Your task to perform on an android device: empty trash in google photos Image 0: 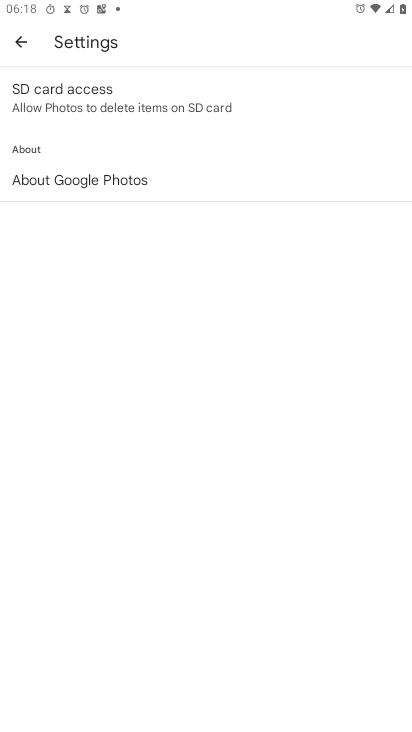
Step 0: press home button
Your task to perform on an android device: empty trash in google photos Image 1: 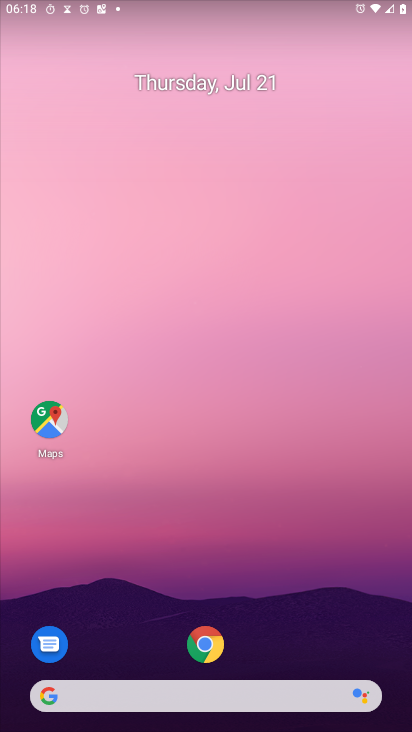
Step 1: drag from (321, 599) to (307, 47)
Your task to perform on an android device: empty trash in google photos Image 2: 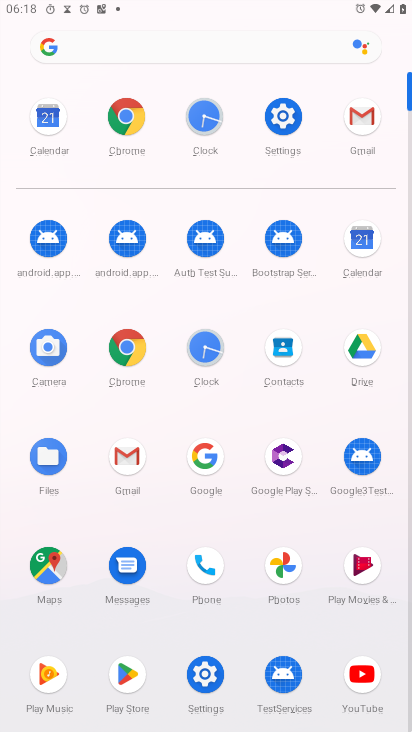
Step 2: click (283, 556)
Your task to perform on an android device: empty trash in google photos Image 3: 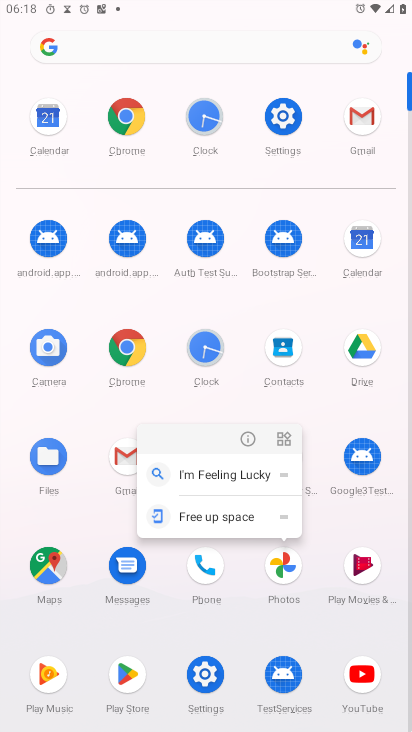
Step 3: click (283, 560)
Your task to perform on an android device: empty trash in google photos Image 4: 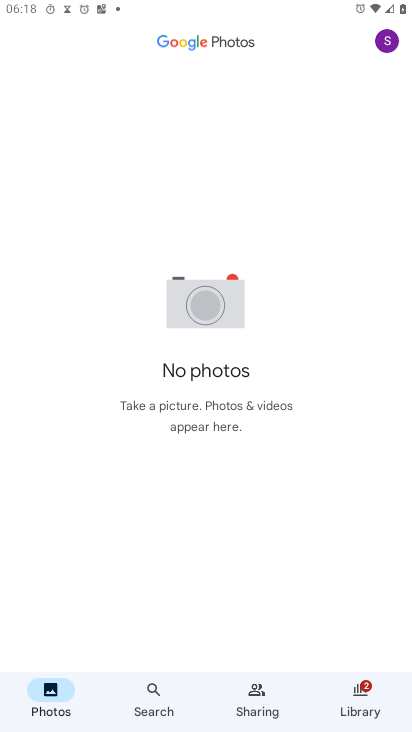
Step 4: click (362, 688)
Your task to perform on an android device: empty trash in google photos Image 5: 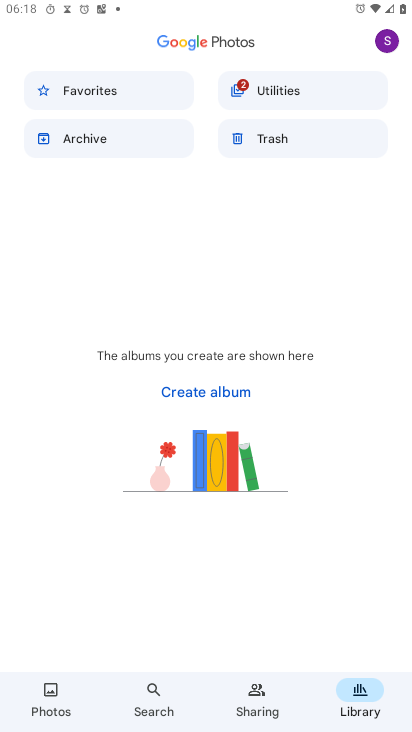
Step 5: click (259, 140)
Your task to perform on an android device: empty trash in google photos Image 6: 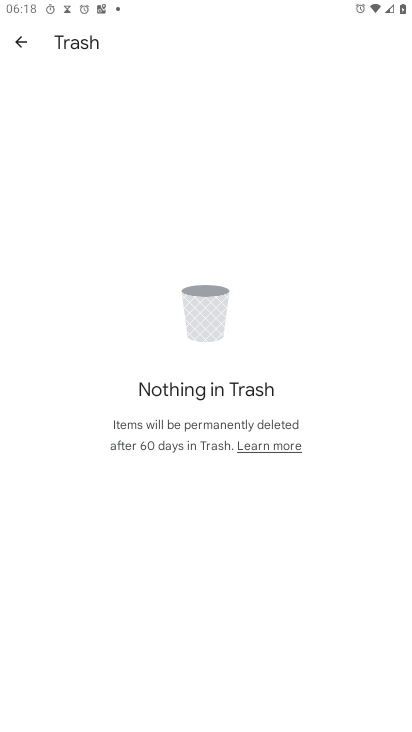
Step 6: task complete